Your task to perform on an android device: read, delete, or share a saved page in the chrome app Image 0: 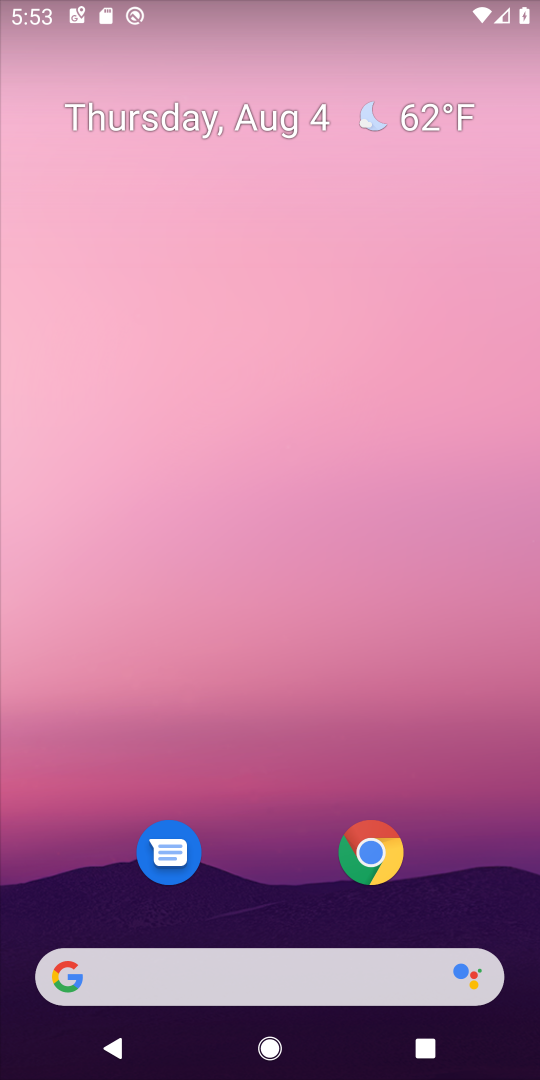
Step 0: click (361, 849)
Your task to perform on an android device: read, delete, or share a saved page in the chrome app Image 1: 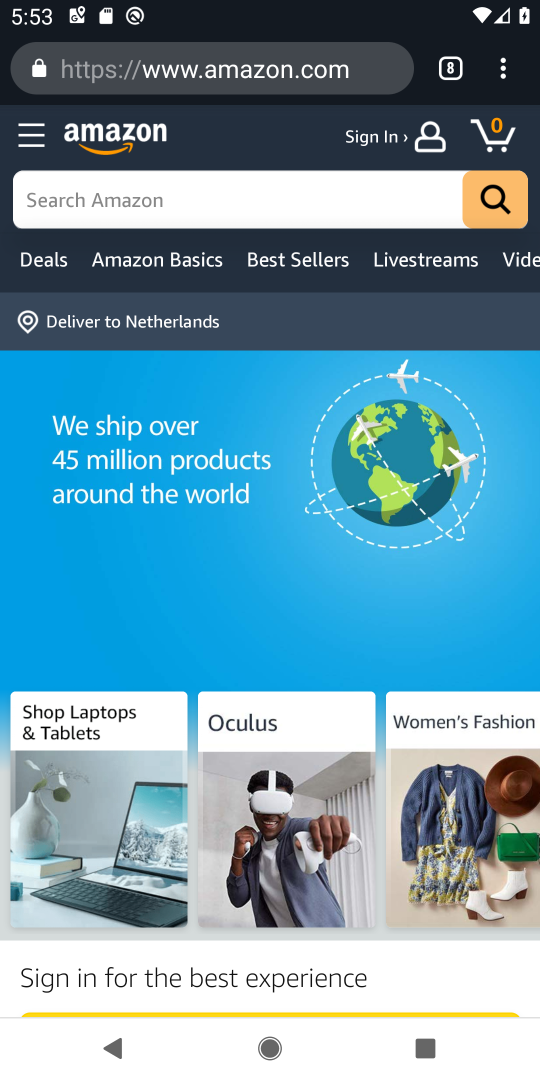
Step 1: click (507, 81)
Your task to perform on an android device: read, delete, or share a saved page in the chrome app Image 2: 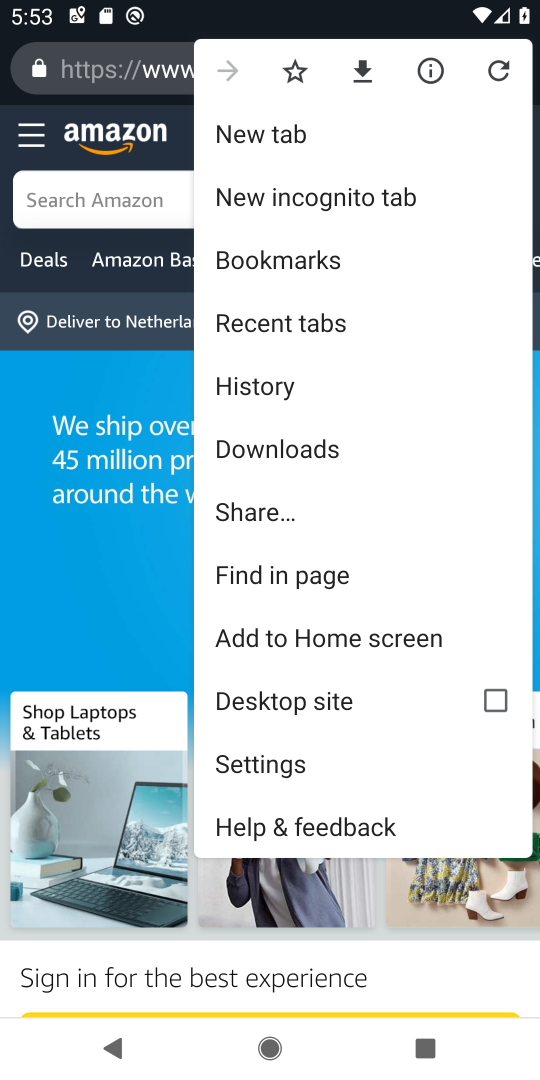
Step 2: click (264, 448)
Your task to perform on an android device: read, delete, or share a saved page in the chrome app Image 3: 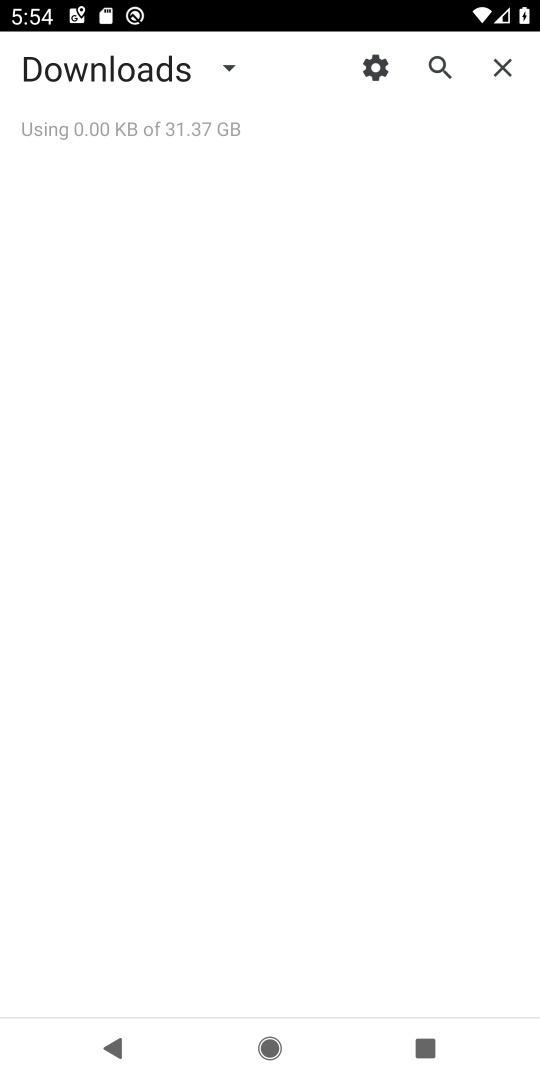
Step 3: click (221, 65)
Your task to perform on an android device: read, delete, or share a saved page in the chrome app Image 4: 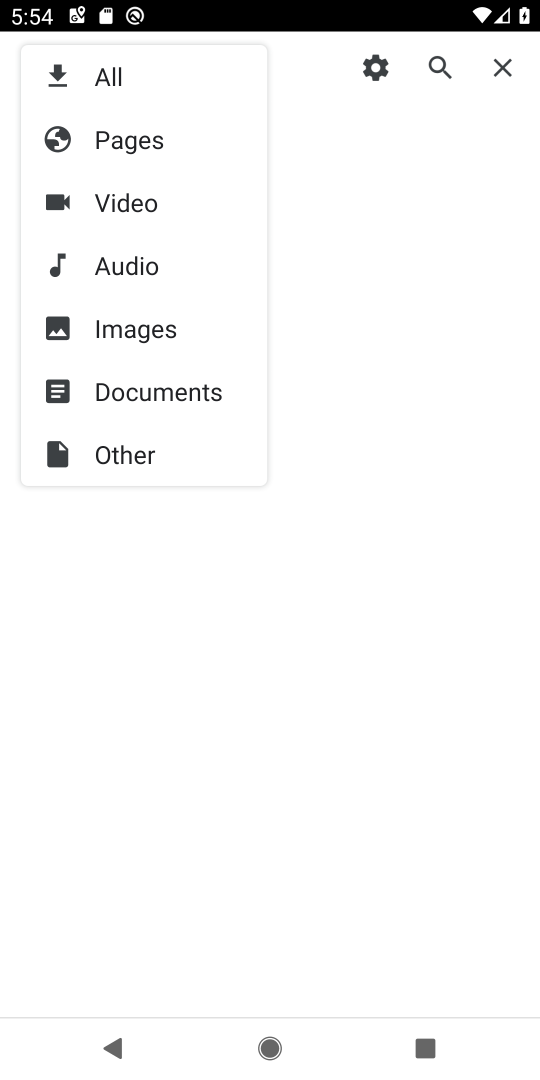
Step 4: click (127, 140)
Your task to perform on an android device: read, delete, or share a saved page in the chrome app Image 5: 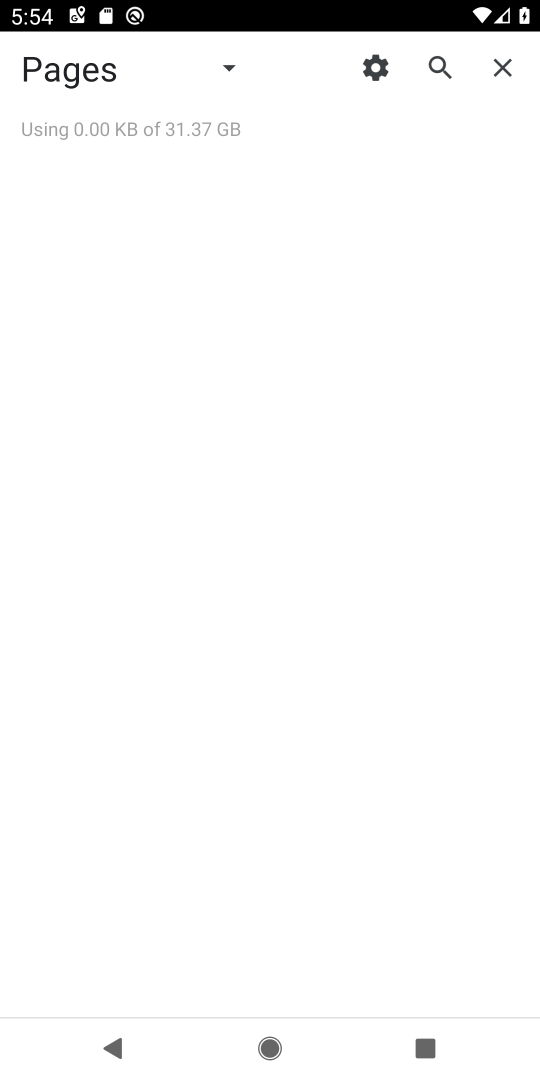
Step 5: task complete